Your task to perform on an android device: add a contact Image 0: 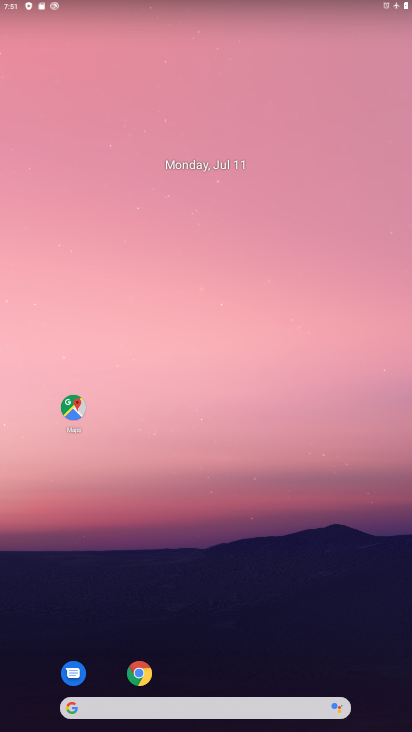
Step 0: drag from (272, 594) to (275, 105)
Your task to perform on an android device: add a contact Image 1: 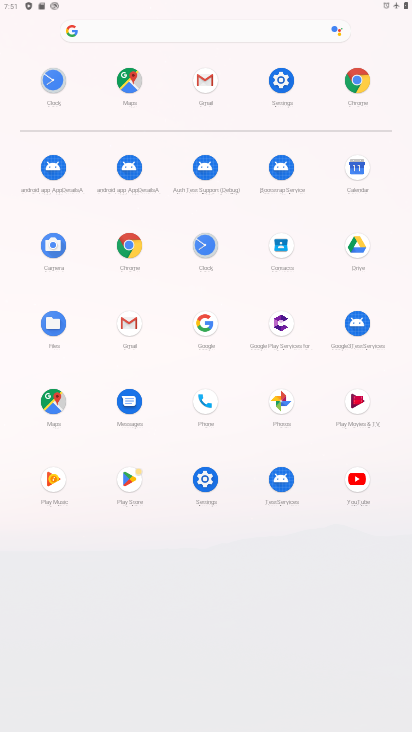
Step 1: click (285, 243)
Your task to perform on an android device: add a contact Image 2: 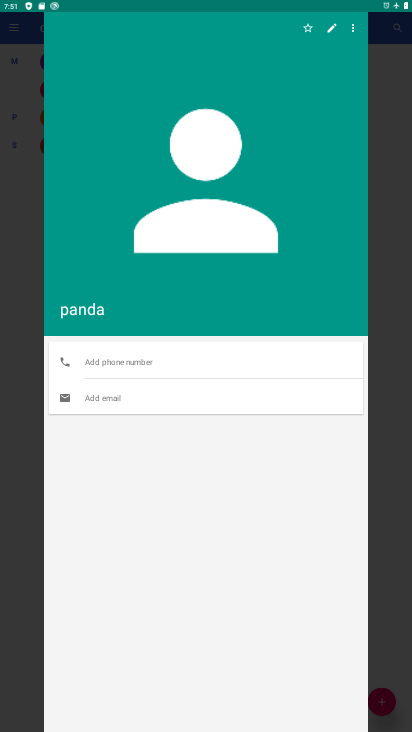
Step 2: press back button
Your task to perform on an android device: add a contact Image 3: 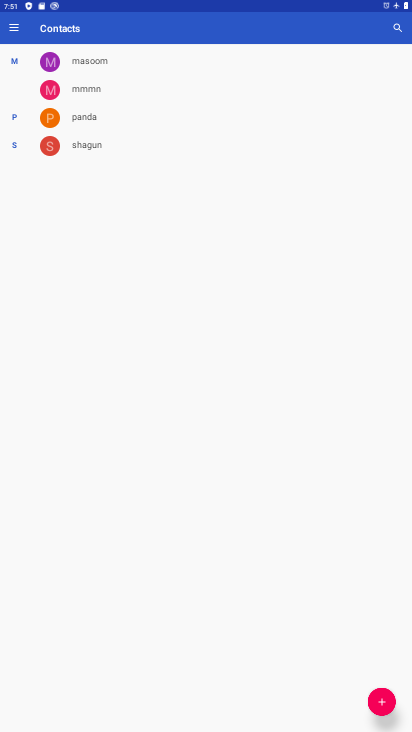
Step 3: click (380, 704)
Your task to perform on an android device: add a contact Image 4: 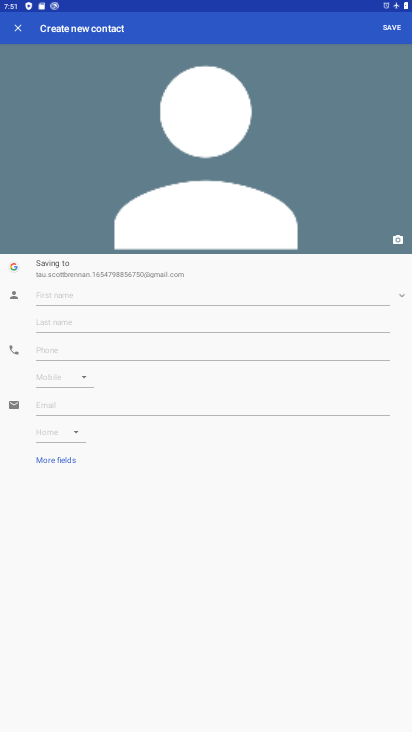
Step 4: click (185, 296)
Your task to perform on an android device: add a contact Image 5: 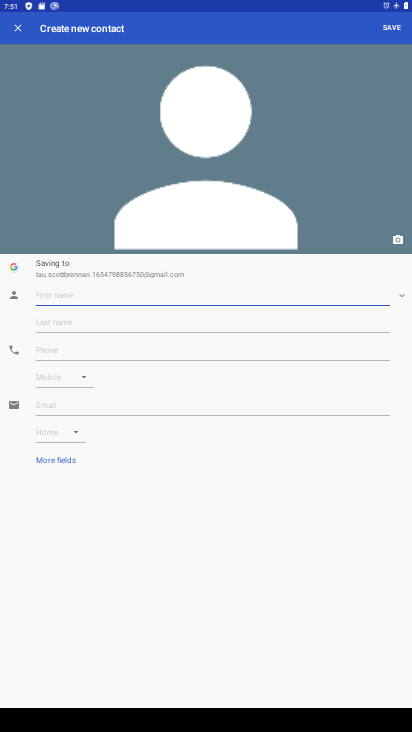
Step 5: type "champa"
Your task to perform on an android device: add a contact Image 6: 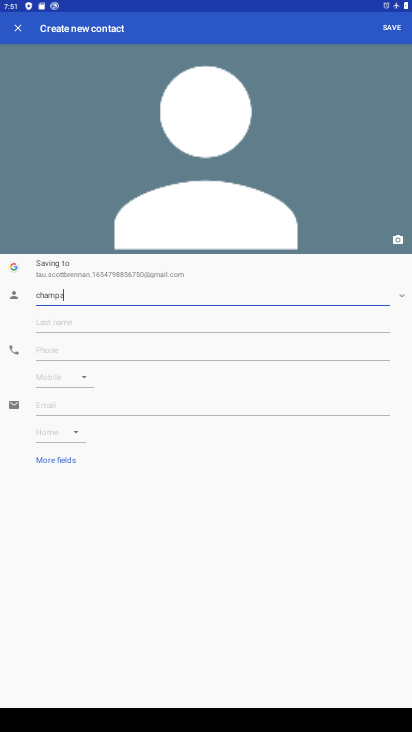
Step 6: click (394, 26)
Your task to perform on an android device: add a contact Image 7: 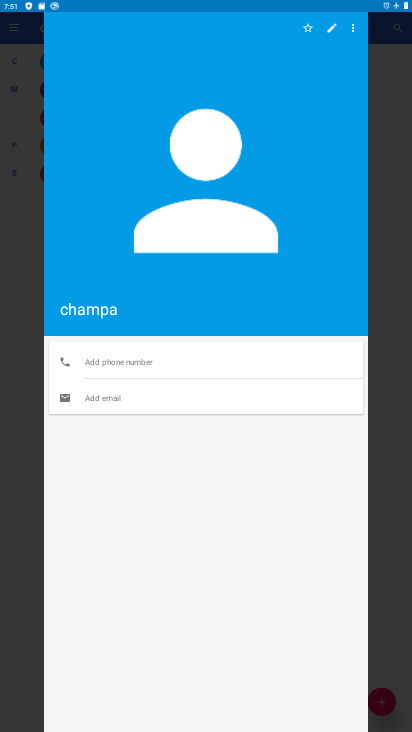
Step 7: task complete